Your task to perform on an android device: Do I have any events today? Image 0: 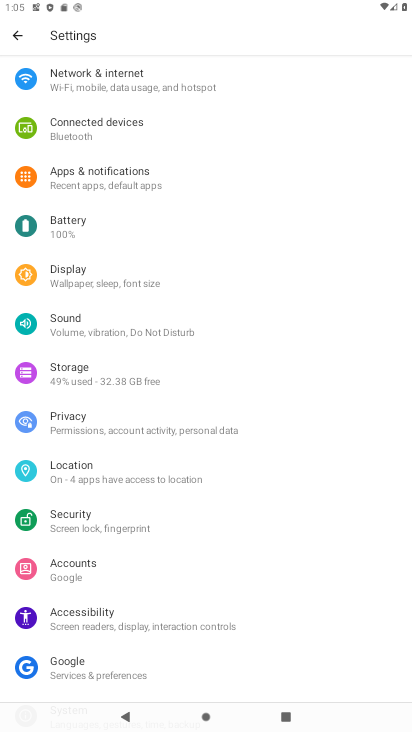
Step 0: press home button
Your task to perform on an android device: Do I have any events today? Image 1: 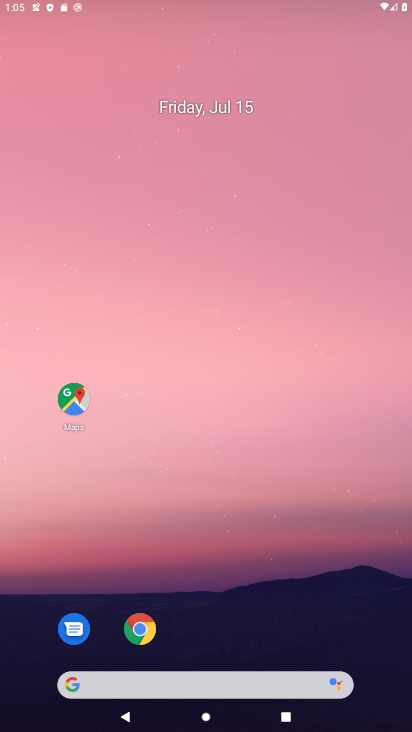
Step 1: drag from (252, 599) to (255, 1)
Your task to perform on an android device: Do I have any events today? Image 2: 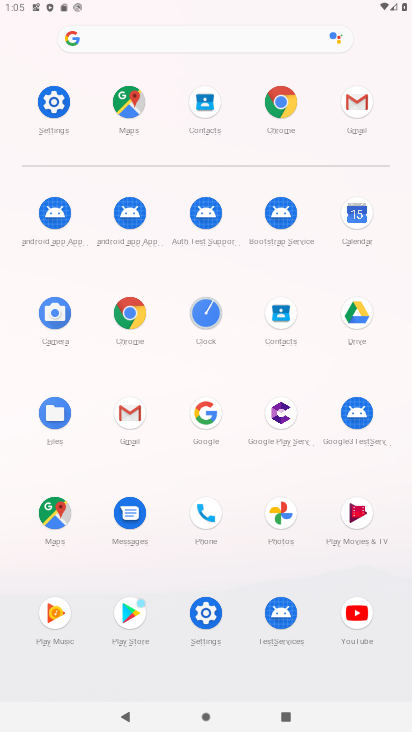
Step 2: click (353, 206)
Your task to perform on an android device: Do I have any events today? Image 3: 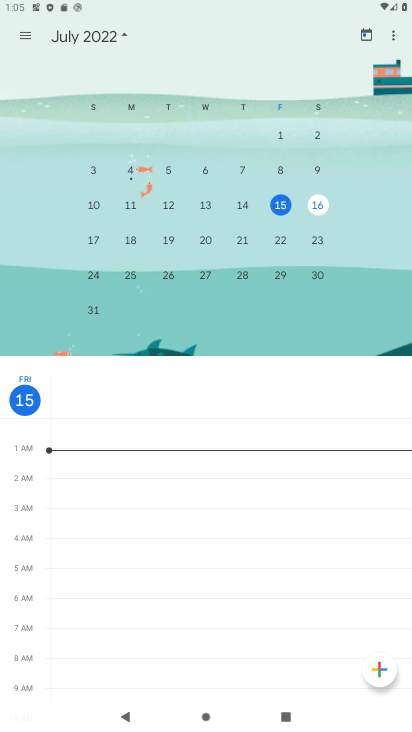
Step 3: task complete